Your task to perform on an android device: Go to Yahoo.com Image 0: 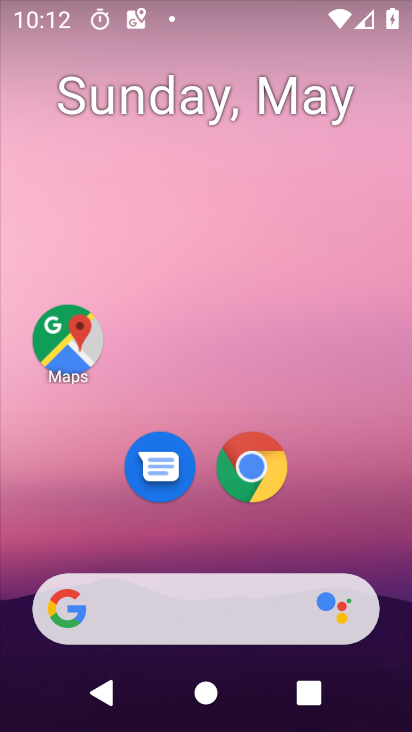
Step 0: click (255, 493)
Your task to perform on an android device: Go to Yahoo.com Image 1: 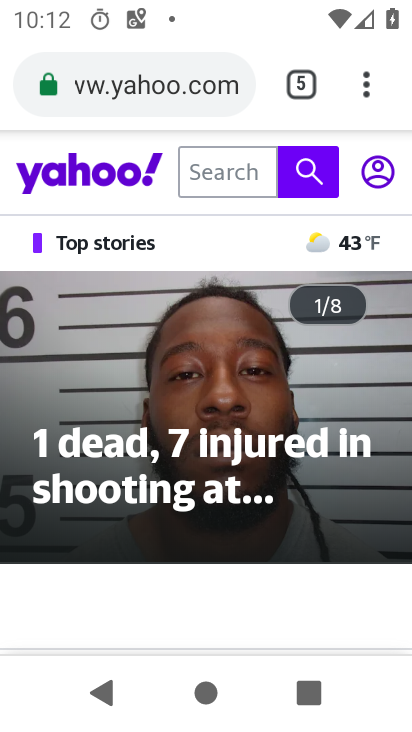
Step 1: task complete